Your task to perform on an android device: Open internet settings Image 0: 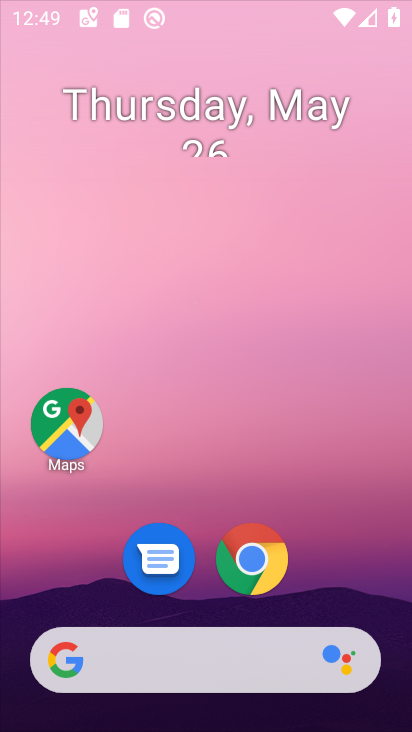
Step 0: press home button
Your task to perform on an android device: Open internet settings Image 1: 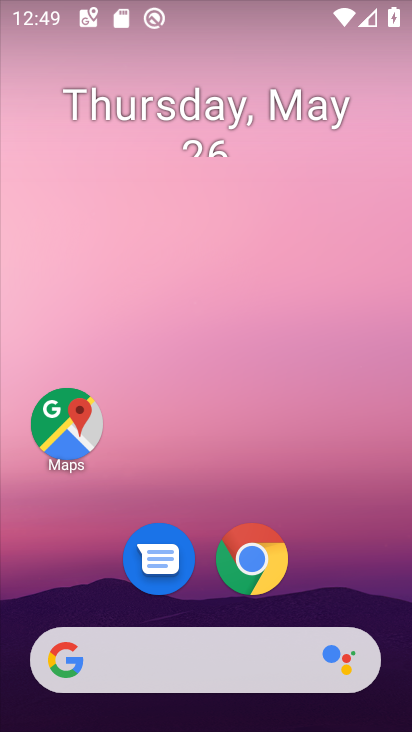
Step 1: drag from (309, 618) to (302, 148)
Your task to perform on an android device: Open internet settings Image 2: 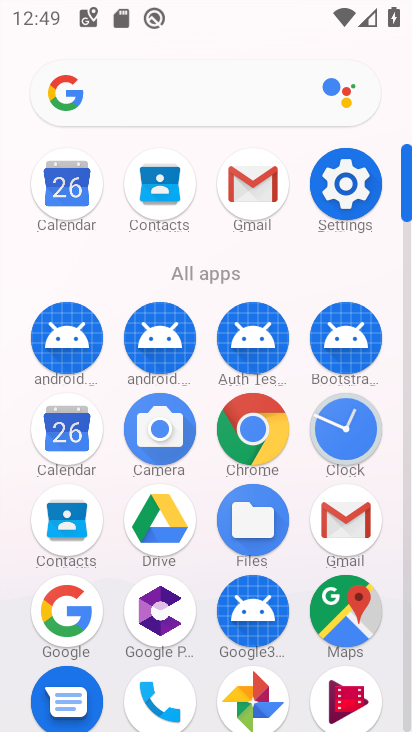
Step 2: click (337, 187)
Your task to perform on an android device: Open internet settings Image 3: 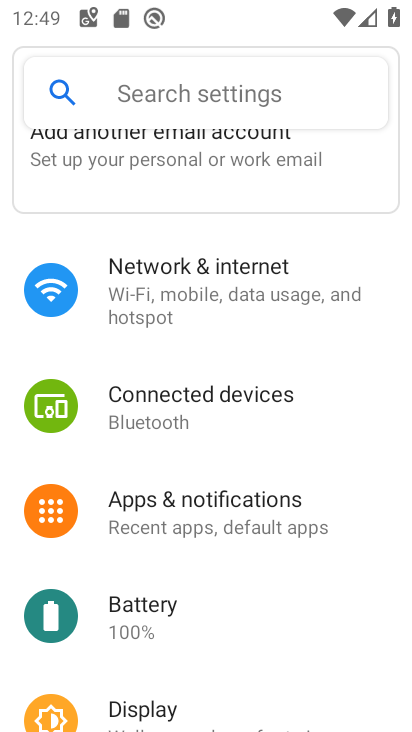
Step 3: click (175, 284)
Your task to perform on an android device: Open internet settings Image 4: 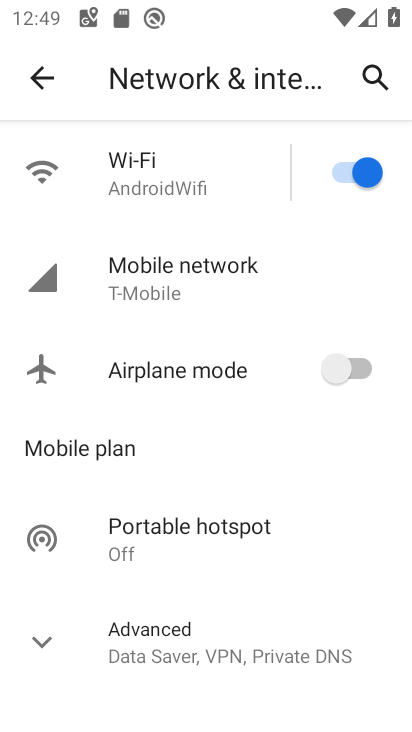
Step 4: task complete